Your task to perform on an android device: Go to Google Image 0: 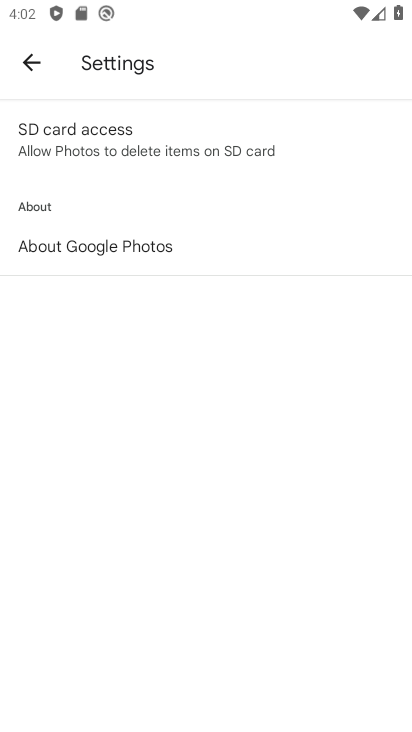
Step 0: press home button
Your task to perform on an android device: Go to Google Image 1: 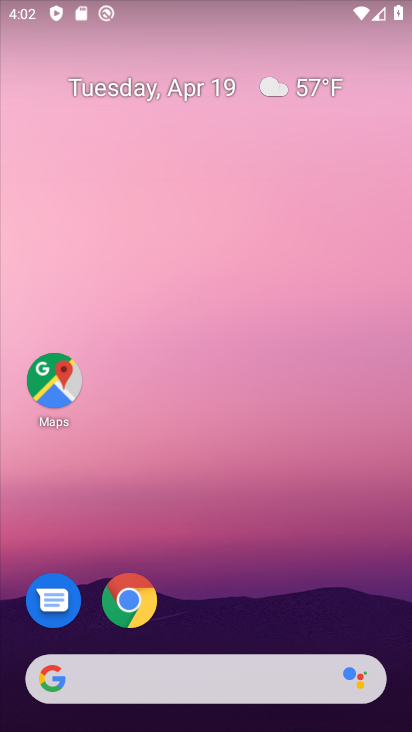
Step 1: drag from (323, 580) to (245, 11)
Your task to perform on an android device: Go to Google Image 2: 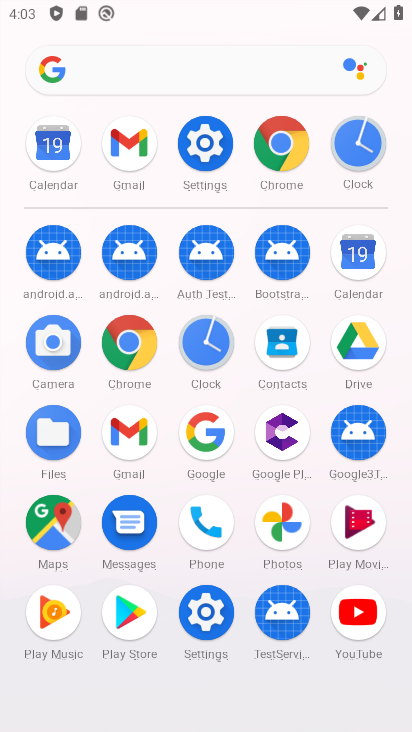
Step 2: click (216, 460)
Your task to perform on an android device: Go to Google Image 3: 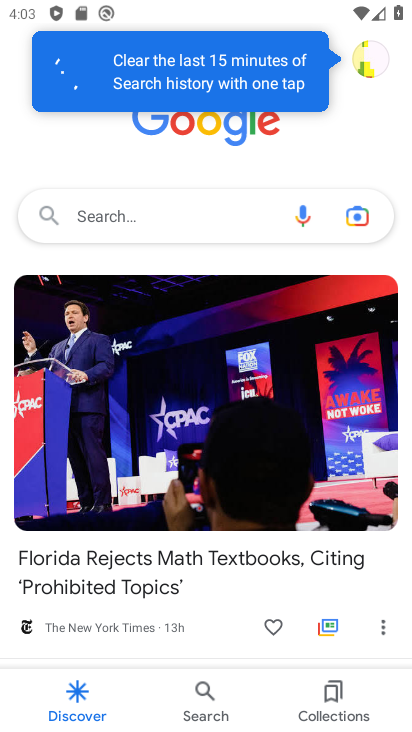
Step 3: task complete